Your task to perform on an android device: turn on showing notifications on the lock screen Image 0: 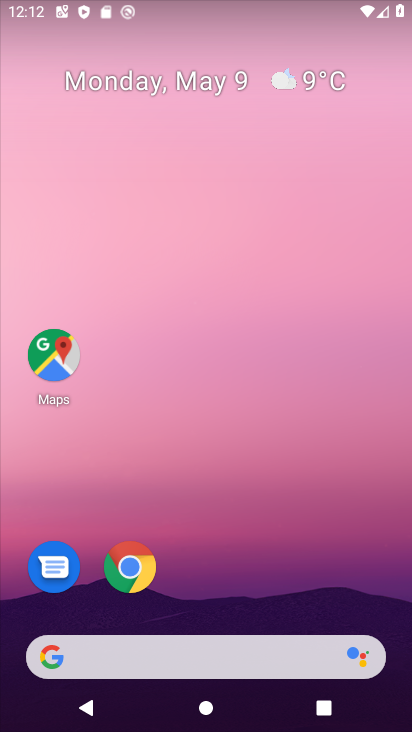
Step 0: drag from (266, 664) to (246, 232)
Your task to perform on an android device: turn on showing notifications on the lock screen Image 1: 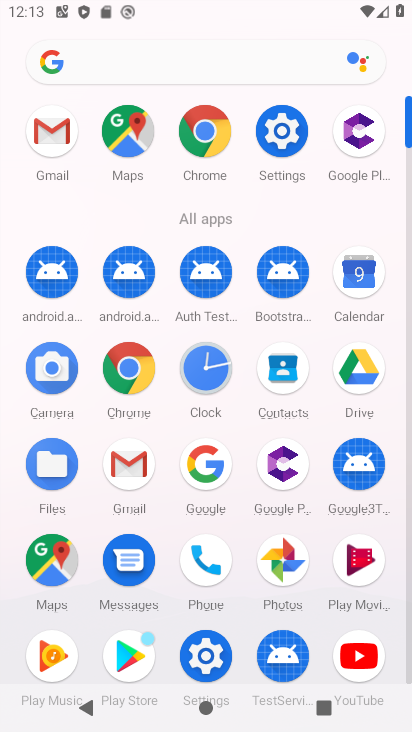
Step 1: click (283, 155)
Your task to perform on an android device: turn on showing notifications on the lock screen Image 2: 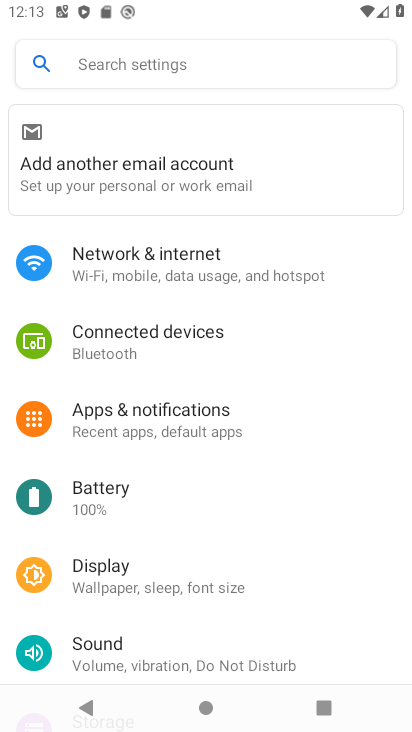
Step 2: click (138, 72)
Your task to perform on an android device: turn on showing notifications on the lock screen Image 3: 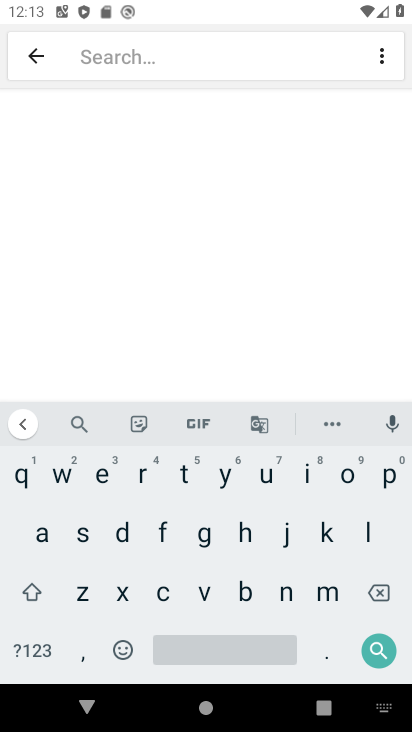
Step 3: click (283, 596)
Your task to perform on an android device: turn on showing notifications on the lock screen Image 4: 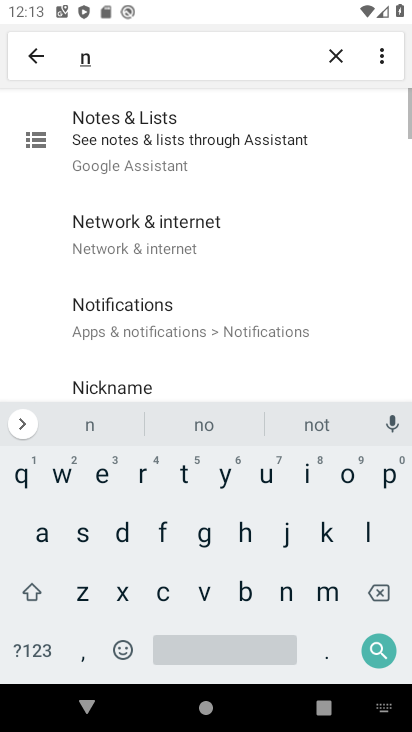
Step 4: click (338, 479)
Your task to perform on an android device: turn on showing notifications on the lock screen Image 5: 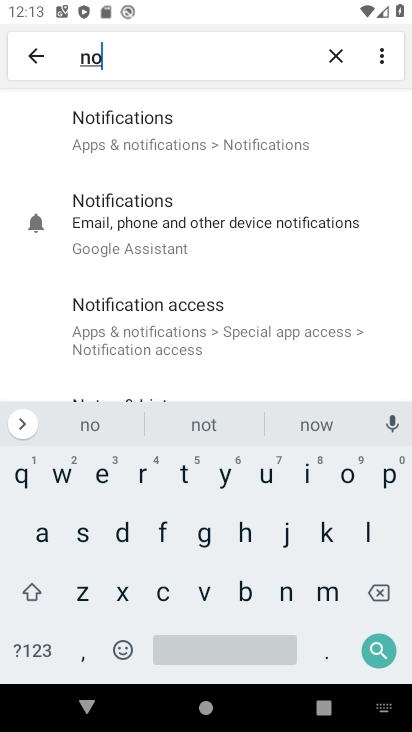
Step 5: click (178, 160)
Your task to perform on an android device: turn on showing notifications on the lock screen Image 6: 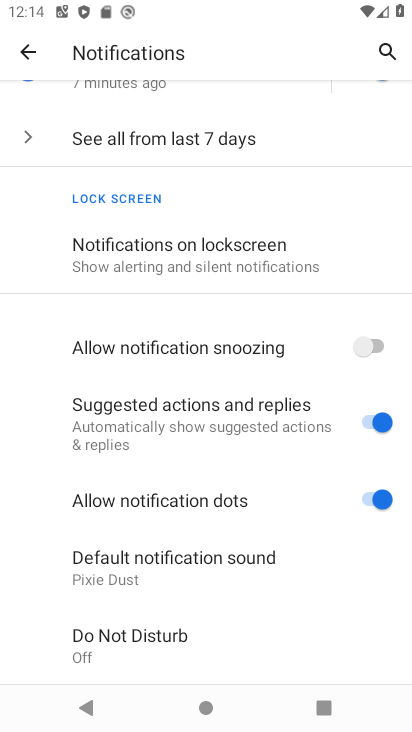
Step 6: click (167, 254)
Your task to perform on an android device: turn on showing notifications on the lock screen Image 7: 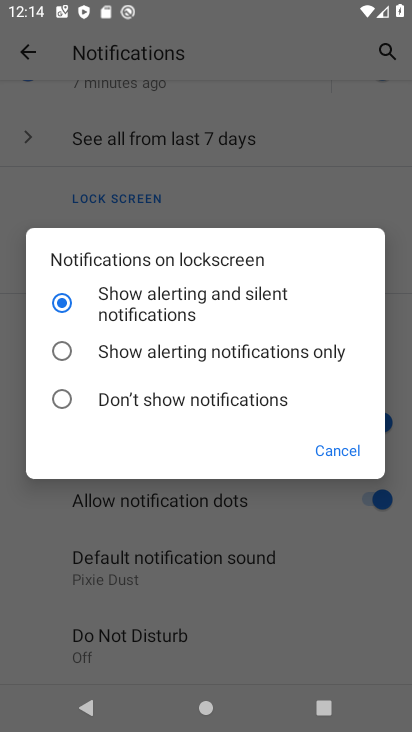
Step 7: task complete